Your task to perform on an android device: refresh tabs in the chrome app Image 0: 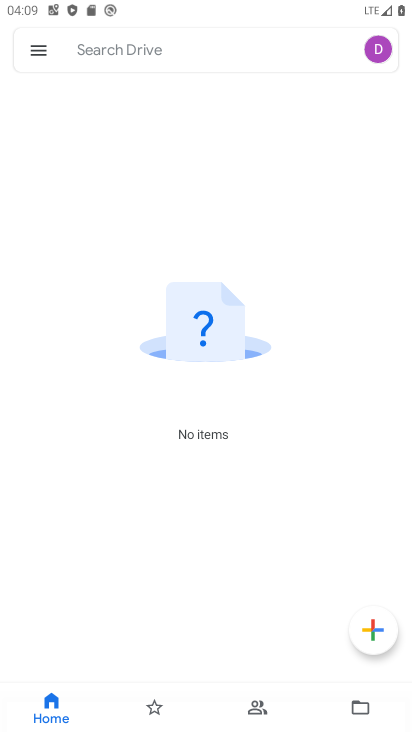
Step 0: press home button
Your task to perform on an android device: refresh tabs in the chrome app Image 1: 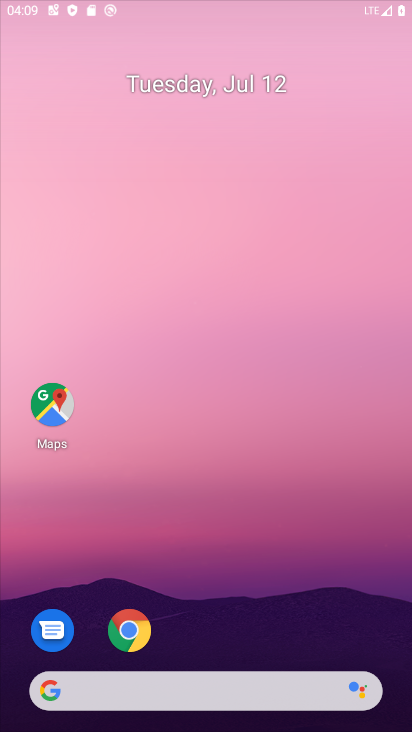
Step 1: drag from (192, 501) to (197, 87)
Your task to perform on an android device: refresh tabs in the chrome app Image 2: 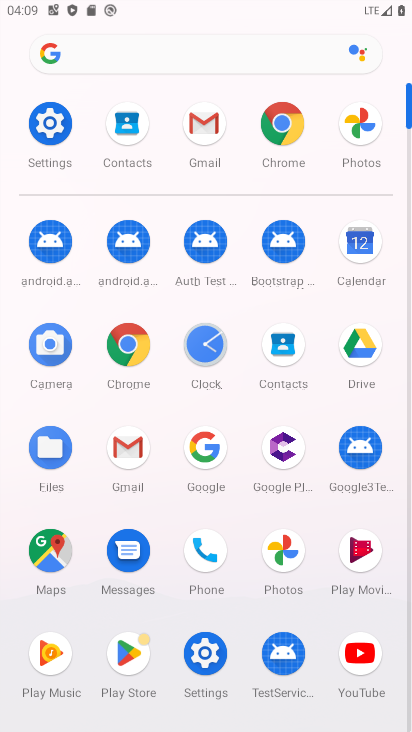
Step 2: click (131, 338)
Your task to perform on an android device: refresh tabs in the chrome app Image 3: 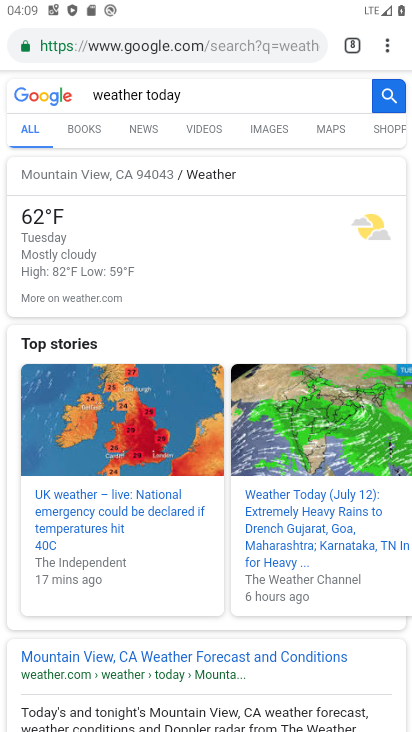
Step 3: click (387, 51)
Your task to perform on an android device: refresh tabs in the chrome app Image 4: 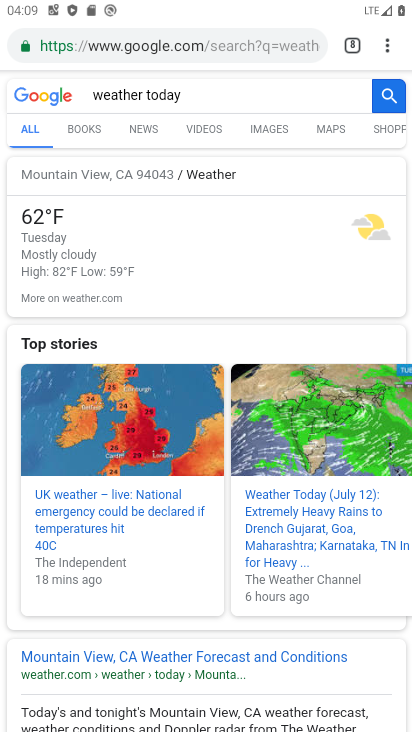
Step 4: task complete